Your task to perform on an android device: When is my next appointment? Image 0: 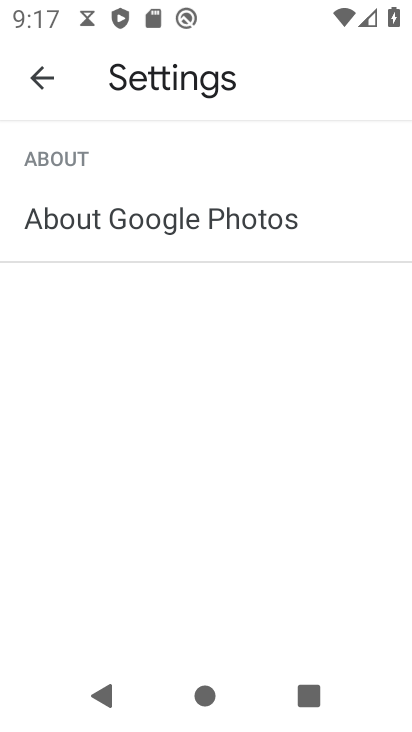
Step 0: press home button
Your task to perform on an android device: When is my next appointment? Image 1: 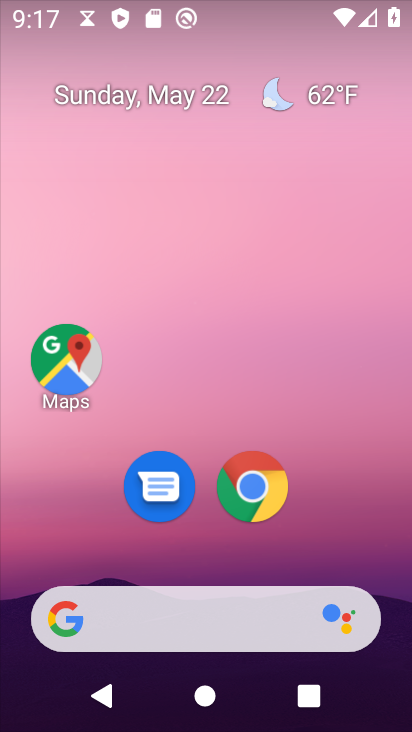
Step 1: drag from (207, 557) to (222, 2)
Your task to perform on an android device: When is my next appointment? Image 2: 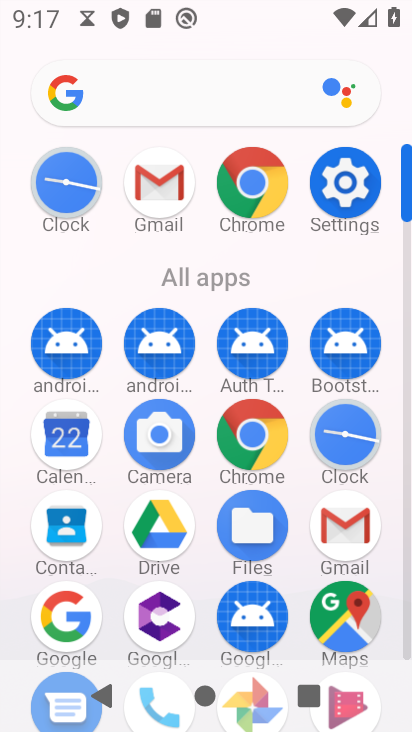
Step 2: click (67, 439)
Your task to perform on an android device: When is my next appointment? Image 3: 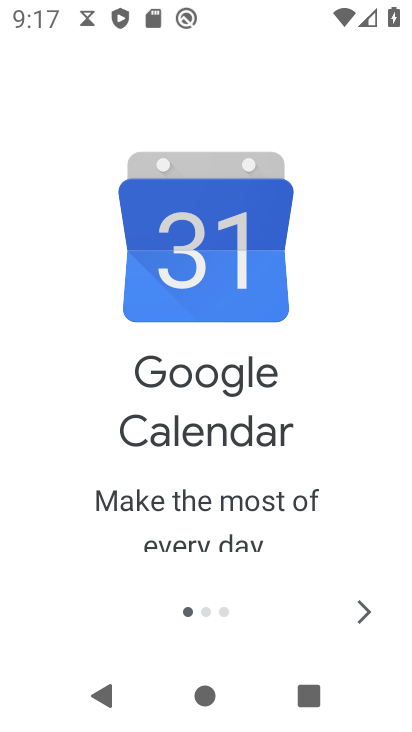
Step 3: click (359, 607)
Your task to perform on an android device: When is my next appointment? Image 4: 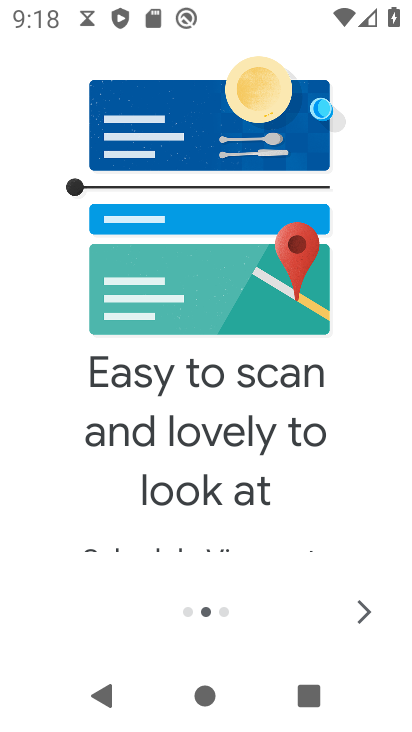
Step 4: click (362, 608)
Your task to perform on an android device: When is my next appointment? Image 5: 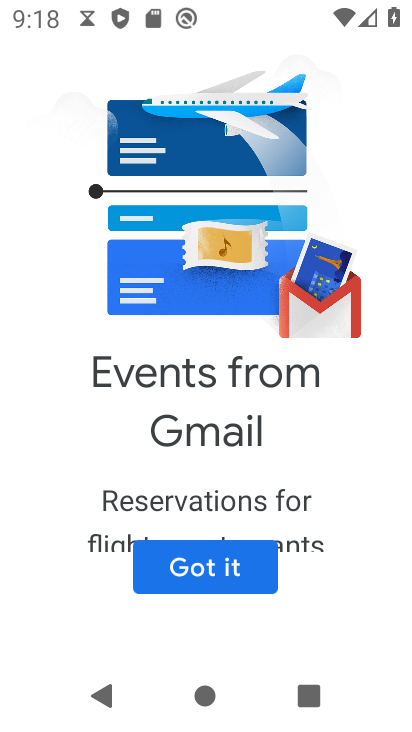
Step 5: click (198, 581)
Your task to perform on an android device: When is my next appointment? Image 6: 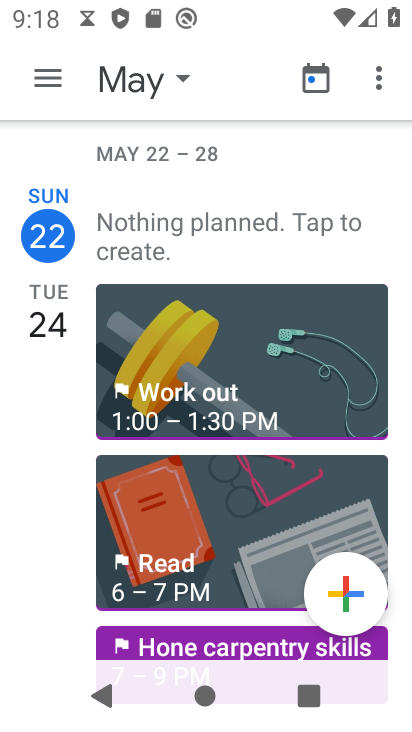
Step 6: click (39, 72)
Your task to perform on an android device: When is my next appointment? Image 7: 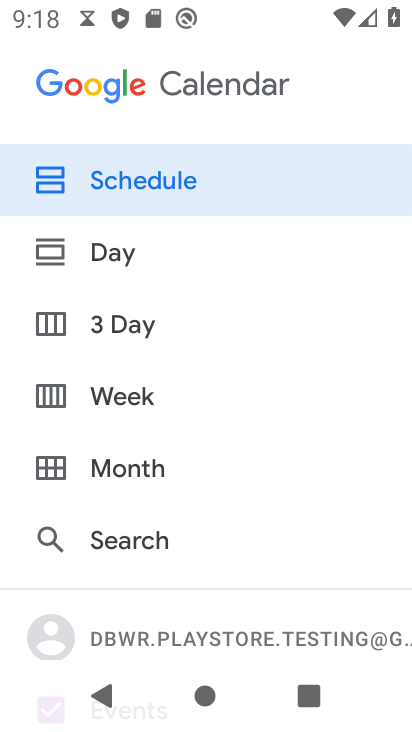
Step 7: click (101, 250)
Your task to perform on an android device: When is my next appointment? Image 8: 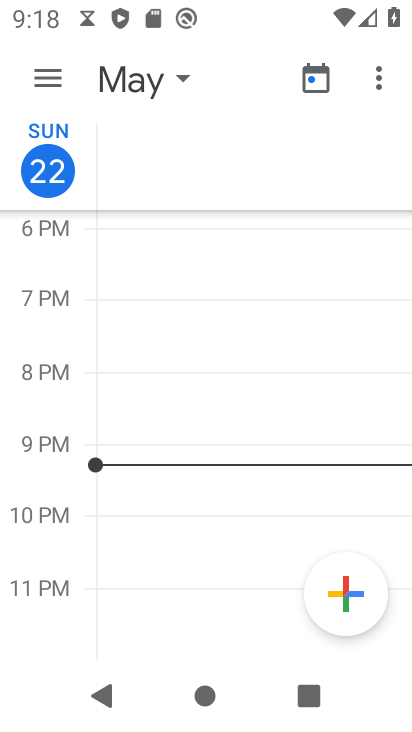
Step 8: click (78, 159)
Your task to perform on an android device: When is my next appointment? Image 9: 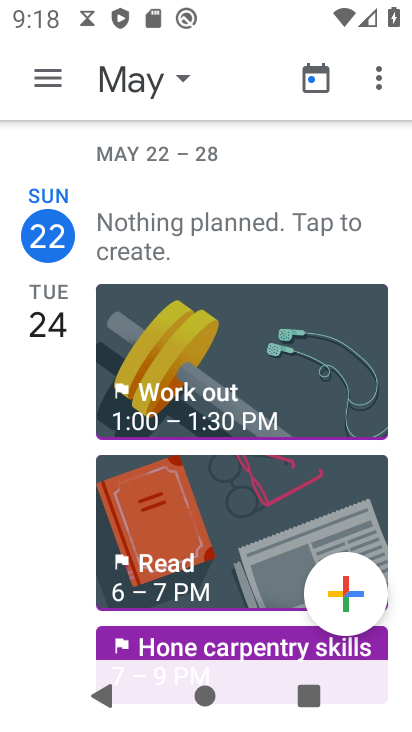
Step 9: task complete